Your task to perform on an android device: turn notification dots on Image 0: 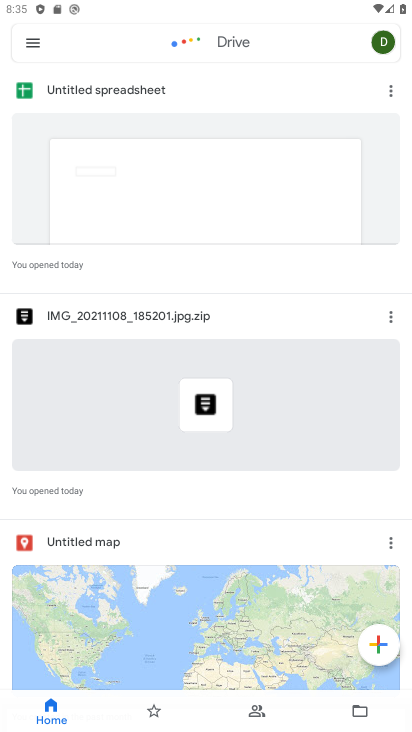
Step 0: press home button
Your task to perform on an android device: turn notification dots on Image 1: 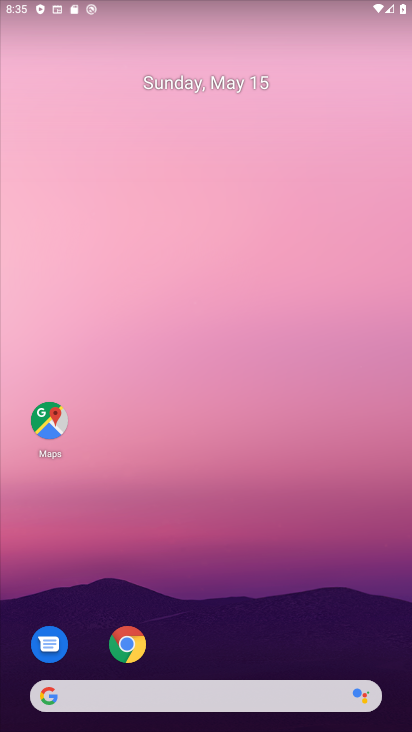
Step 1: drag from (208, 680) to (280, 8)
Your task to perform on an android device: turn notification dots on Image 2: 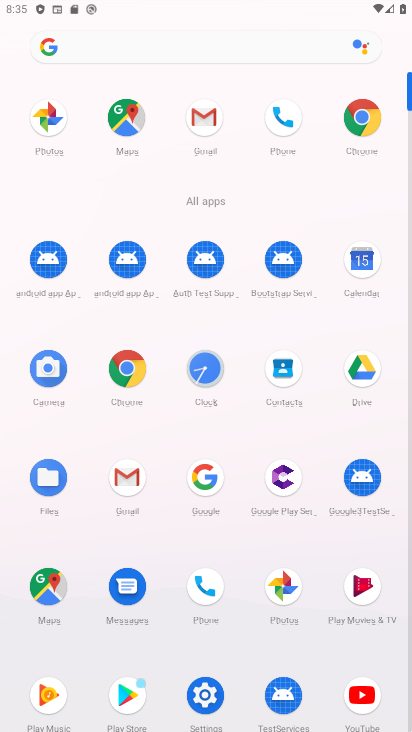
Step 2: click (208, 694)
Your task to perform on an android device: turn notification dots on Image 3: 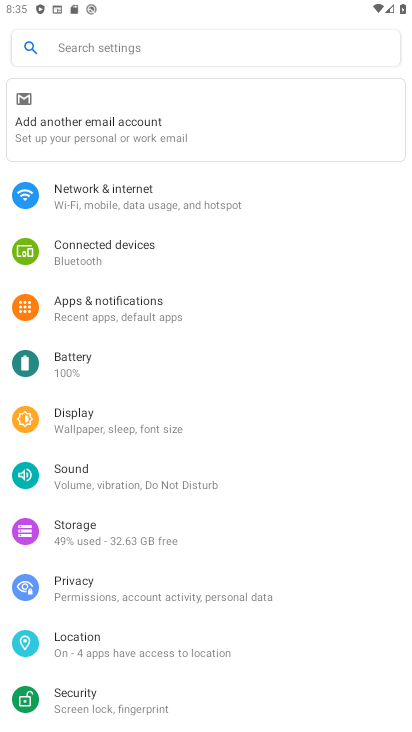
Step 3: click (149, 304)
Your task to perform on an android device: turn notification dots on Image 4: 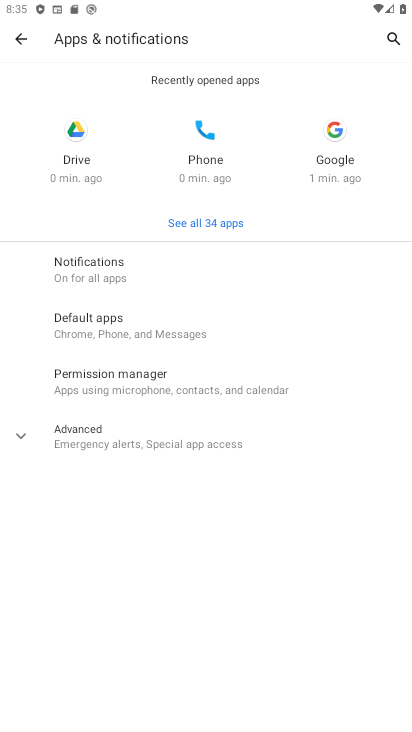
Step 4: click (89, 252)
Your task to perform on an android device: turn notification dots on Image 5: 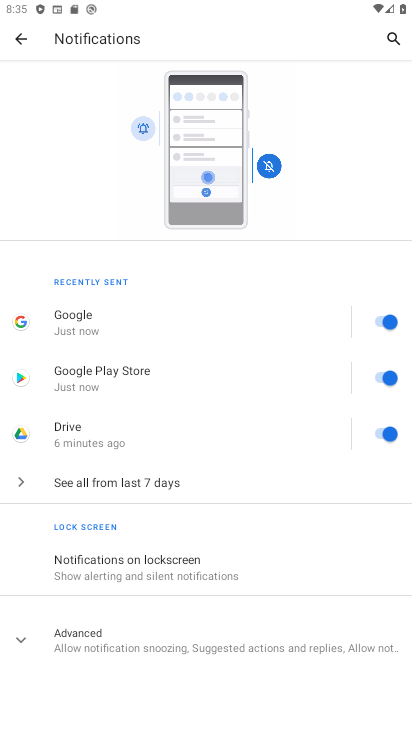
Step 5: click (181, 631)
Your task to perform on an android device: turn notification dots on Image 6: 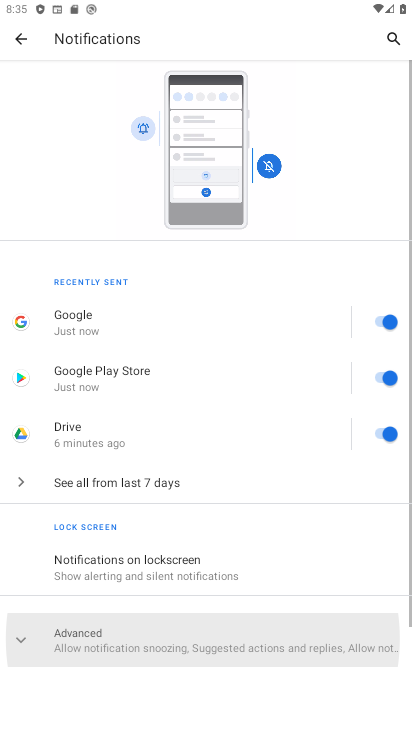
Step 6: task complete